Your task to perform on an android device: Go to Yahoo.com Image 0: 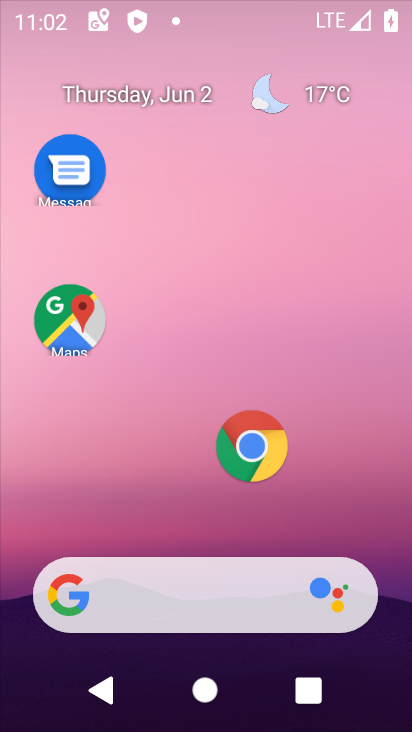
Step 0: press home button
Your task to perform on an android device: Go to Yahoo.com Image 1: 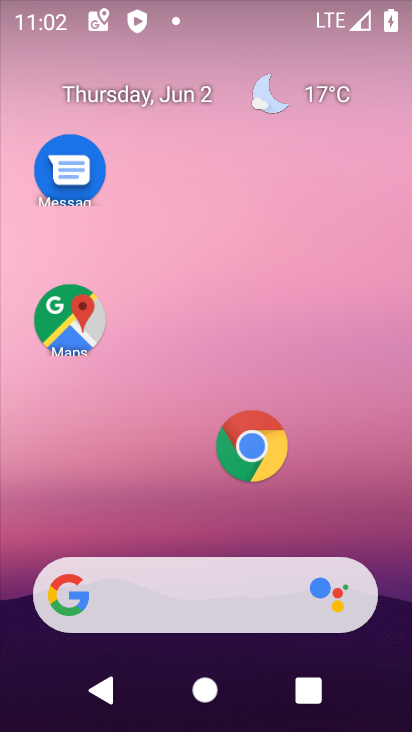
Step 1: click (250, 433)
Your task to perform on an android device: Go to Yahoo.com Image 2: 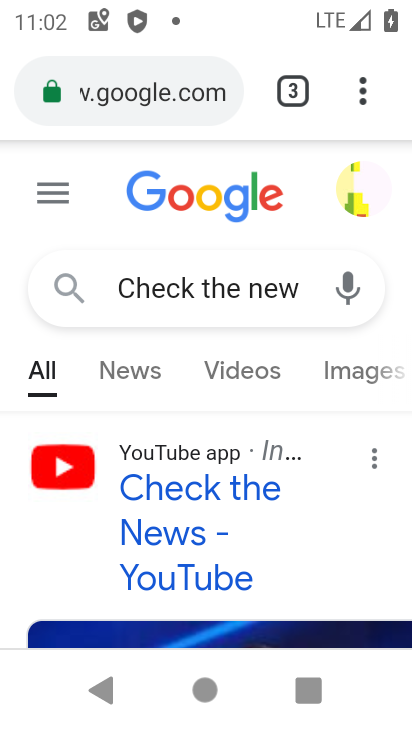
Step 2: click (198, 87)
Your task to perform on an android device: Go to Yahoo.com Image 3: 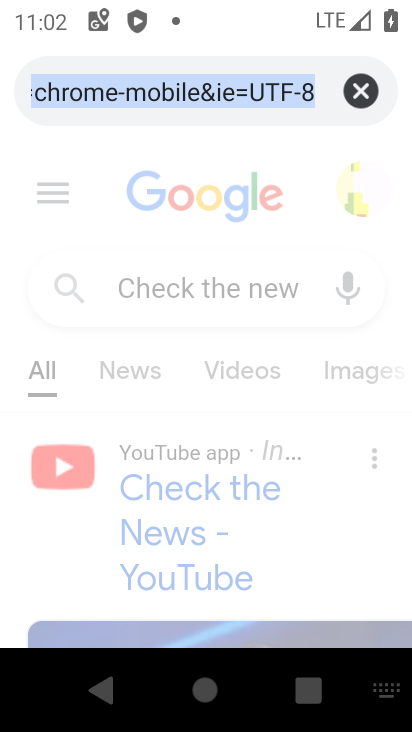
Step 3: click (354, 89)
Your task to perform on an android device: Go to Yahoo.com Image 4: 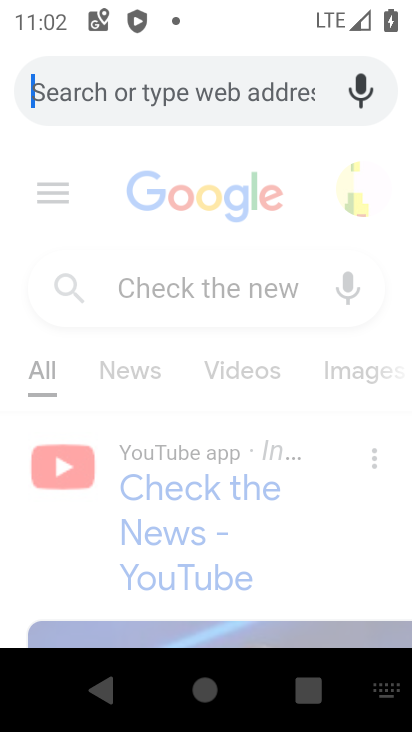
Step 4: type " Yahoo.com"
Your task to perform on an android device: Go to Yahoo.com Image 5: 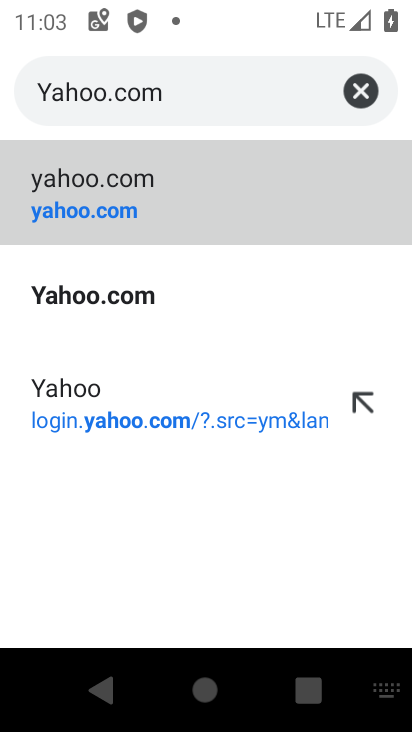
Step 5: click (130, 186)
Your task to perform on an android device: Go to Yahoo.com Image 6: 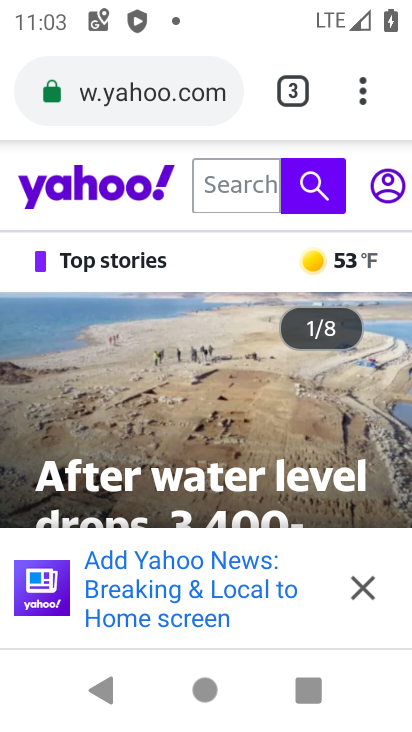
Step 6: task complete